Your task to perform on an android device: find which apps use the phone's location Image 0: 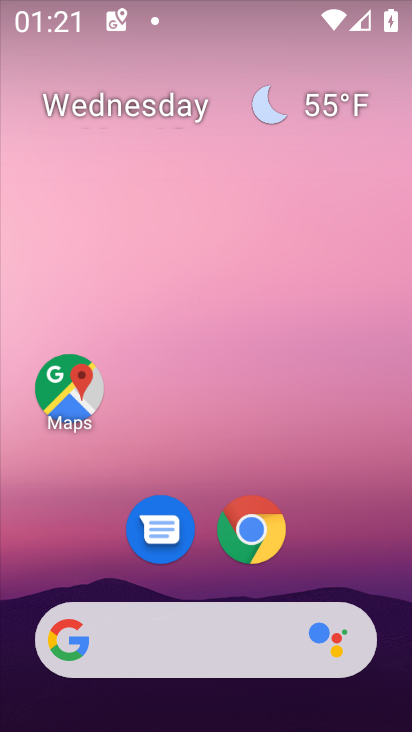
Step 0: drag from (214, 728) to (214, 153)
Your task to perform on an android device: find which apps use the phone's location Image 1: 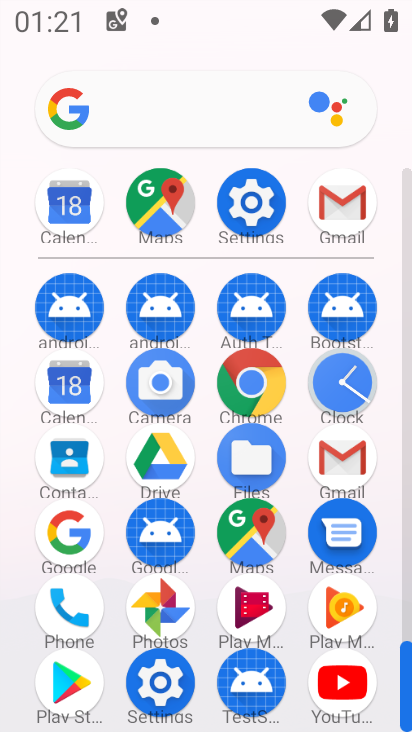
Step 1: click (255, 206)
Your task to perform on an android device: find which apps use the phone's location Image 2: 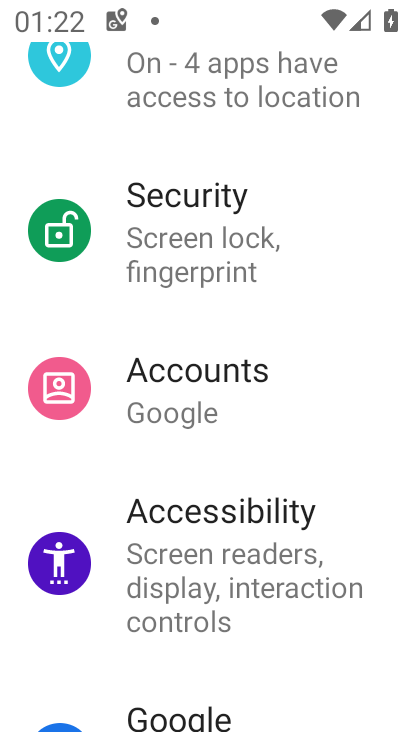
Step 2: drag from (215, 154) to (250, 495)
Your task to perform on an android device: find which apps use the phone's location Image 3: 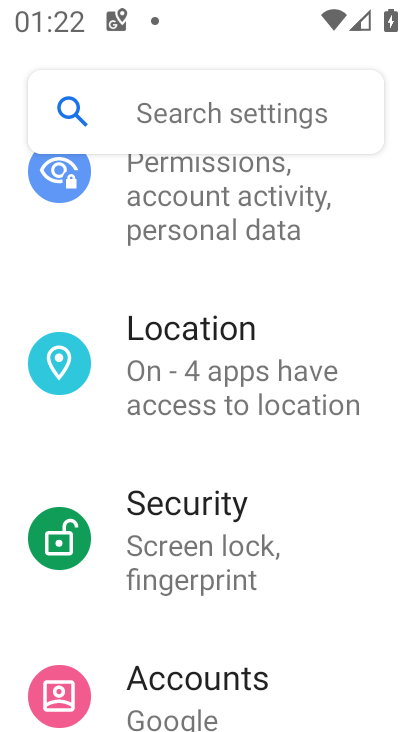
Step 3: click (186, 381)
Your task to perform on an android device: find which apps use the phone's location Image 4: 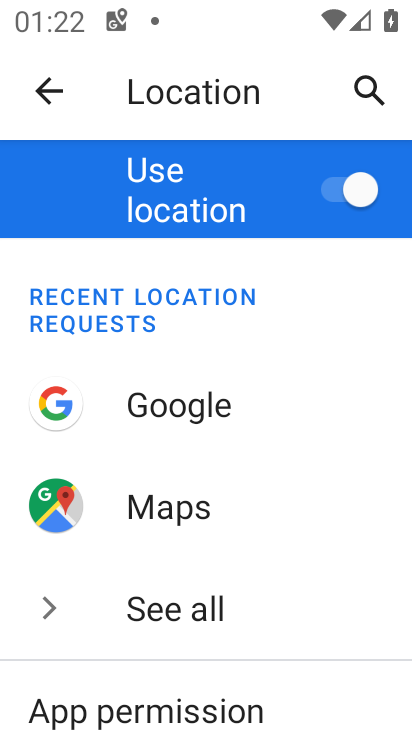
Step 4: drag from (195, 668) to (198, 273)
Your task to perform on an android device: find which apps use the phone's location Image 5: 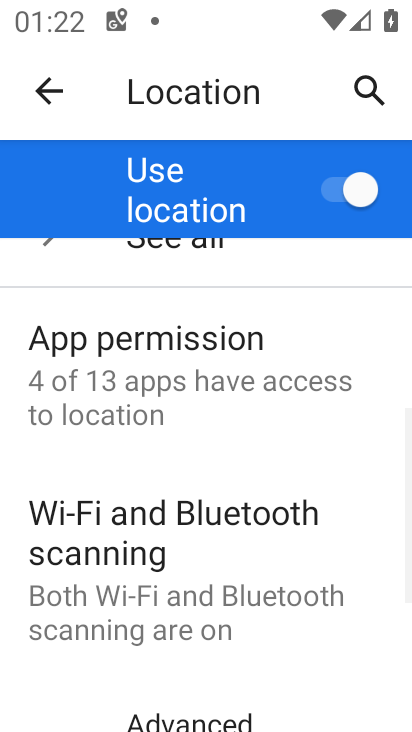
Step 5: click (108, 382)
Your task to perform on an android device: find which apps use the phone's location Image 6: 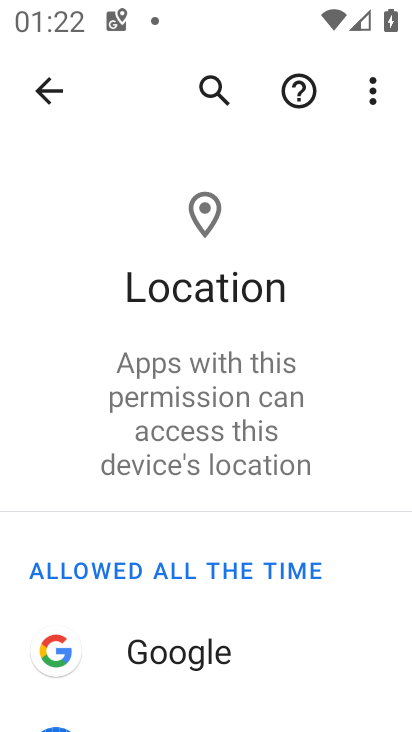
Step 6: task complete